Your task to perform on an android device: stop showing notifications on the lock screen Image 0: 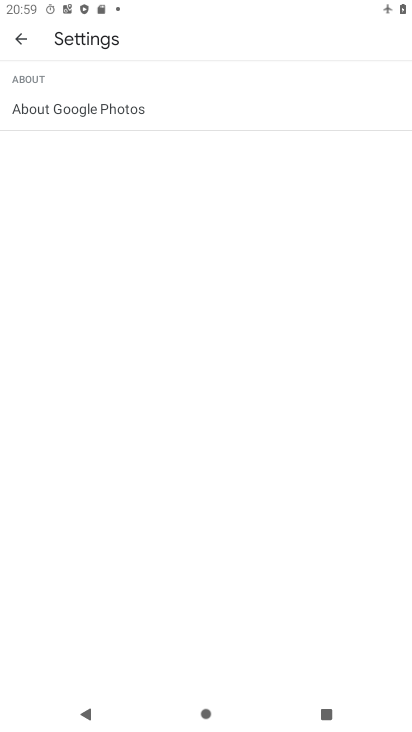
Step 0: press home button
Your task to perform on an android device: stop showing notifications on the lock screen Image 1: 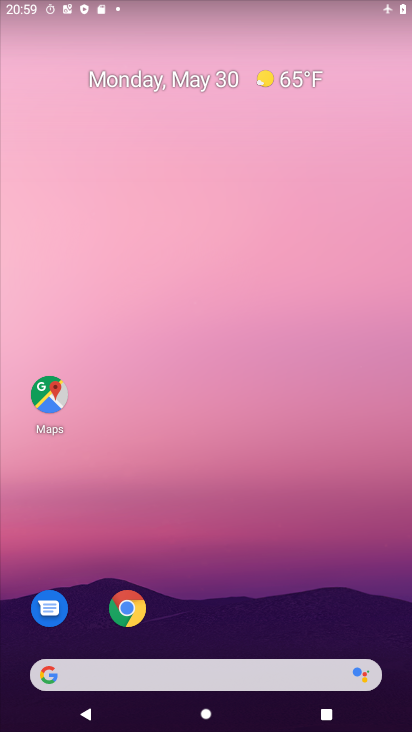
Step 1: drag from (231, 627) to (210, 191)
Your task to perform on an android device: stop showing notifications on the lock screen Image 2: 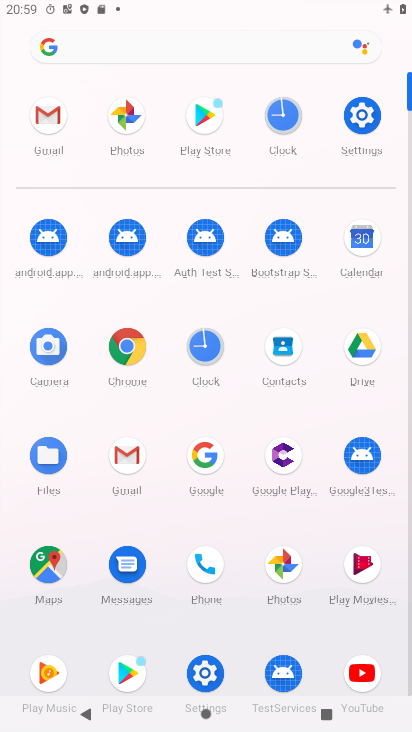
Step 2: click (360, 121)
Your task to perform on an android device: stop showing notifications on the lock screen Image 3: 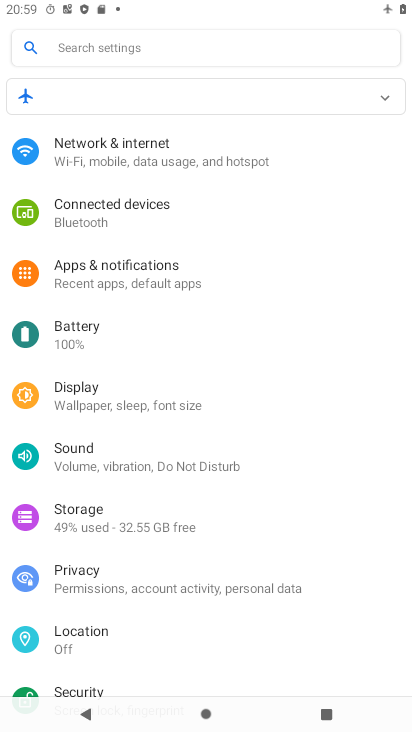
Step 3: click (149, 284)
Your task to perform on an android device: stop showing notifications on the lock screen Image 4: 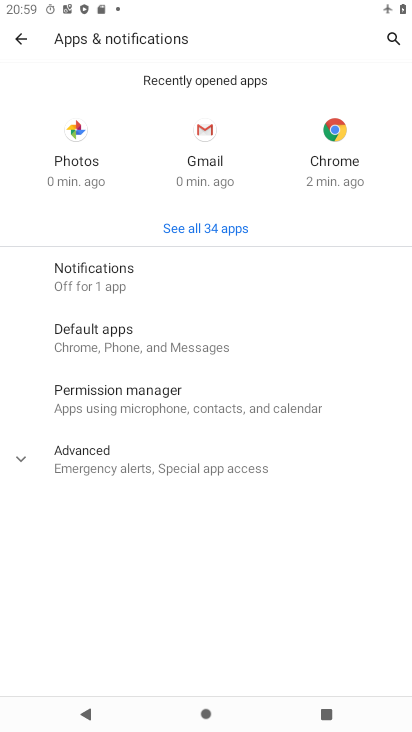
Step 4: click (136, 289)
Your task to perform on an android device: stop showing notifications on the lock screen Image 5: 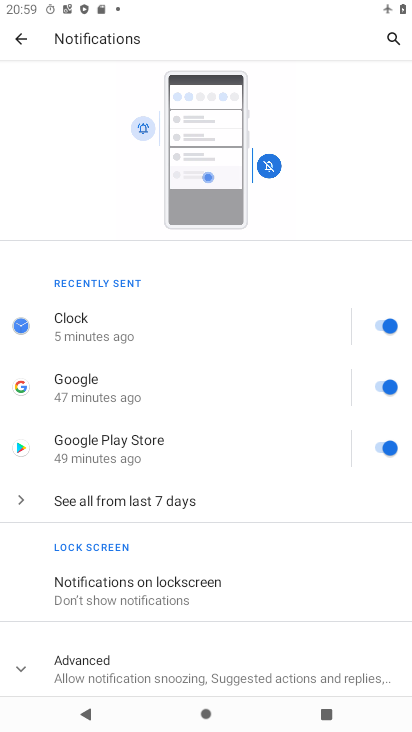
Step 5: click (278, 593)
Your task to perform on an android device: stop showing notifications on the lock screen Image 6: 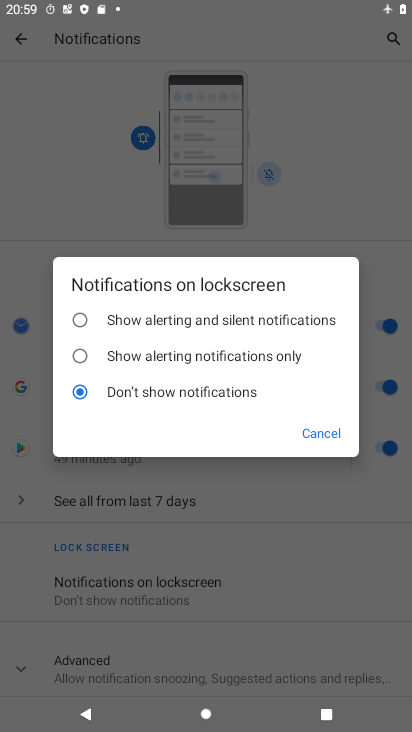
Step 6: click (205, 314)
Your task to perform on an android device: stop showing notifications on the lock screen Image 7: 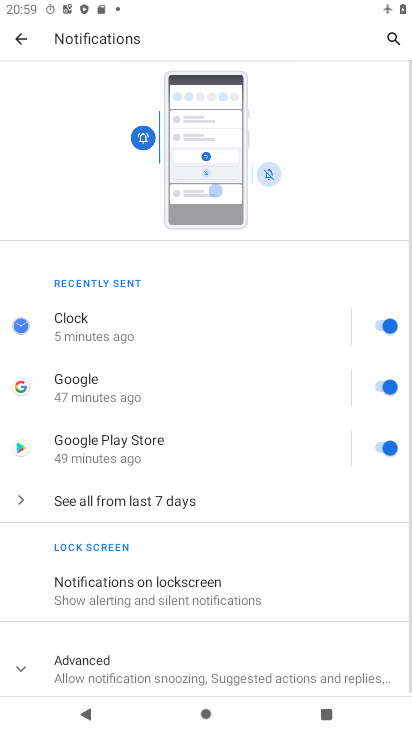
Step 7: click (162, 583)
Your task to perform on an android device: stop showing notifications on the lock screen Image 8: 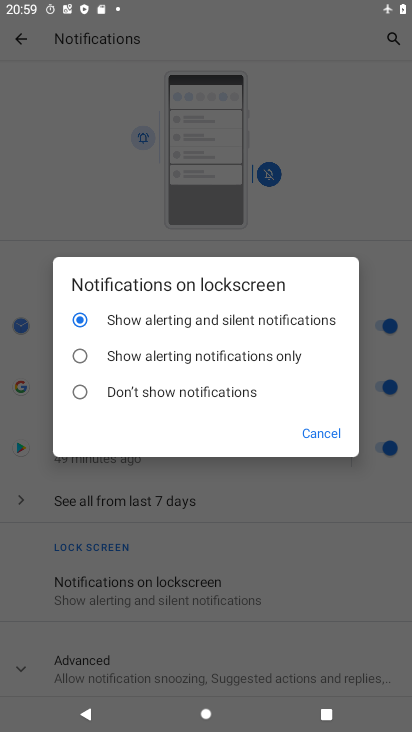
Step 8: click (158, 392)
Your task to perform on an android device: stop showing notifications on the lock screen Image 9: 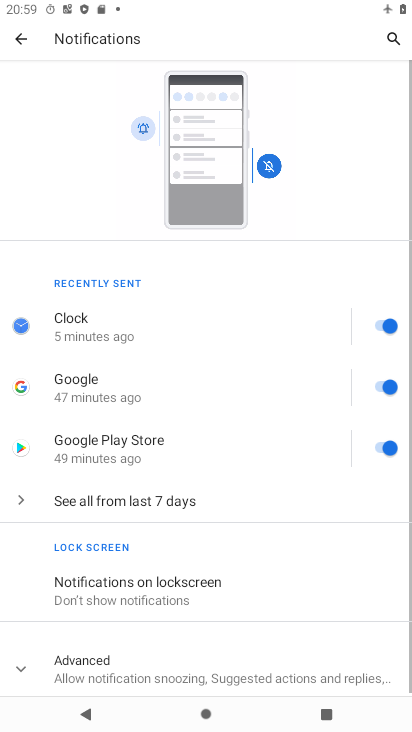
Step 9: task complete